Your task to perform on an android device: check the backup settings in the google photos Image 0: 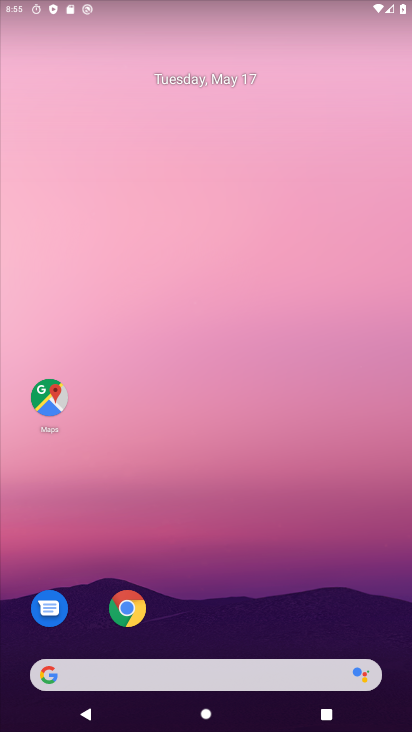
Step 0: drag from (288, 609) to (313, 274)
Your task to perform on an android device: check the backup settings in the google photos Image 1: 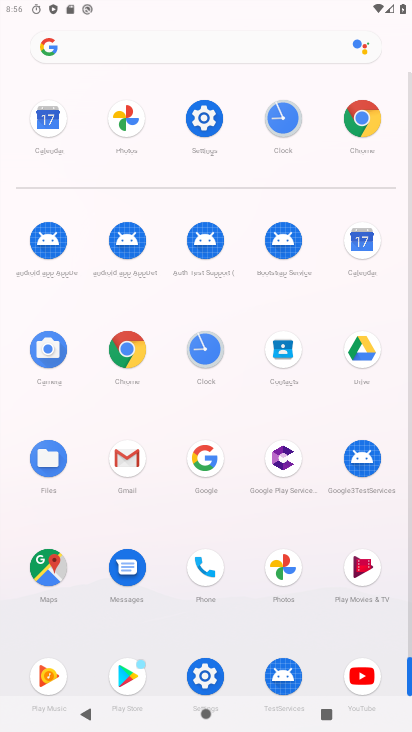
Step 1: click (287, 563)
Your task to perform on an android device: check the backup settings in the google photos Image 2: 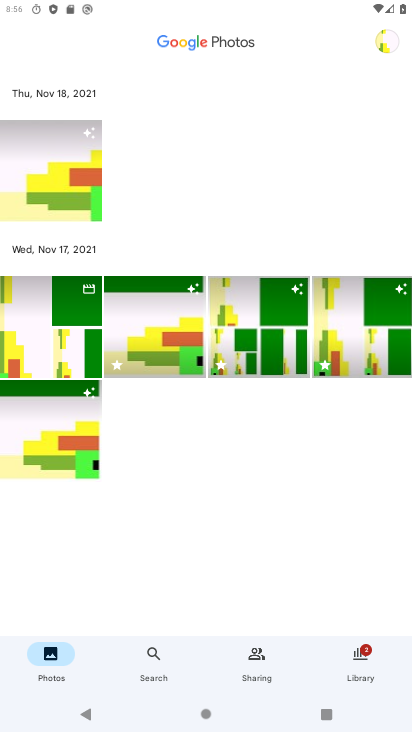
Step 2: click (400, 55)
Your task to perform on an android device: check the backup settings in the google photos Image 3: 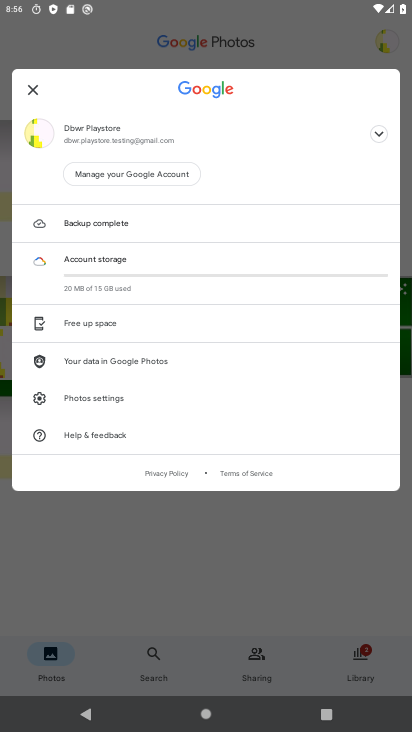
Step 3: click (134, 396)
Your task to perform on an android device: check the backup settings in the google photos Image 4: 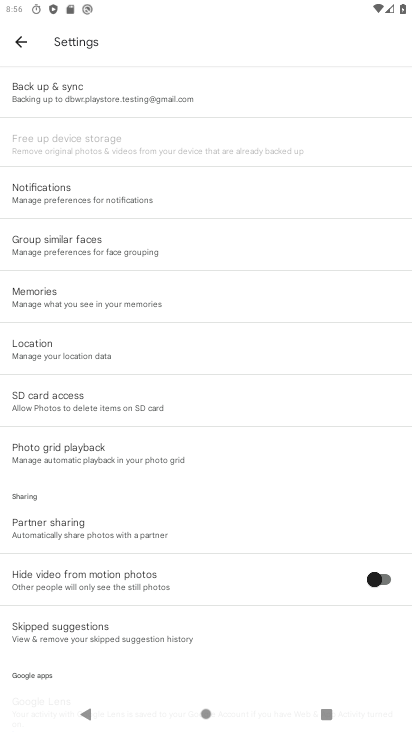
Step 4: click (45, 91)
Your task to perform on an android device: check the backup settings in the google photos Image 5: 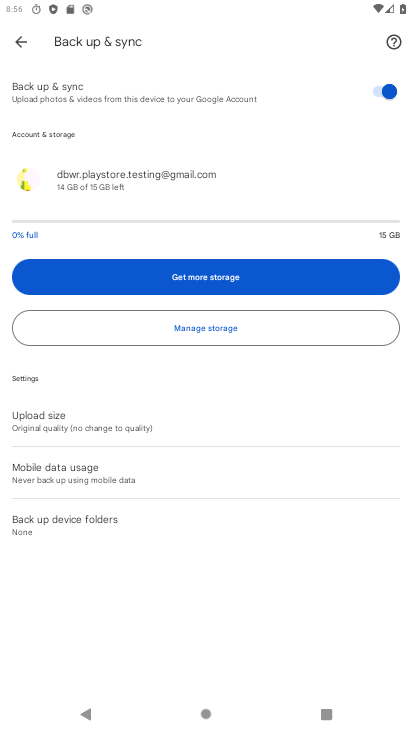
Step 5: task complete